Your task to perform on an android device: Open CNN.com Image 0: 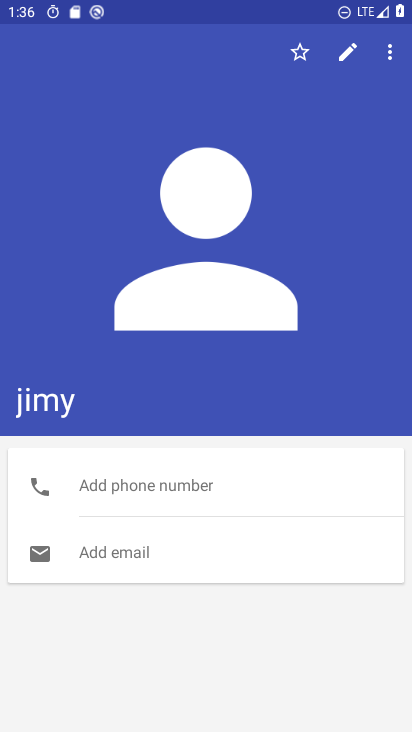
Step 0: press home button
Your task to perform on an android device: Open CNN.com Image 1: 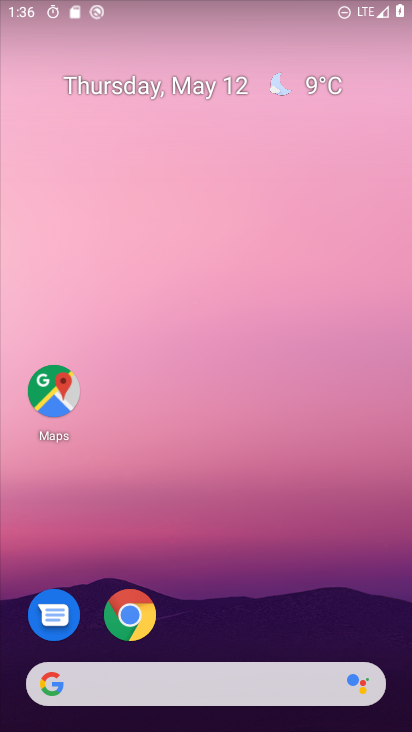
Step 1: click (131, 616)
Your task to perform on an android device: Open CNN.com Image 2: 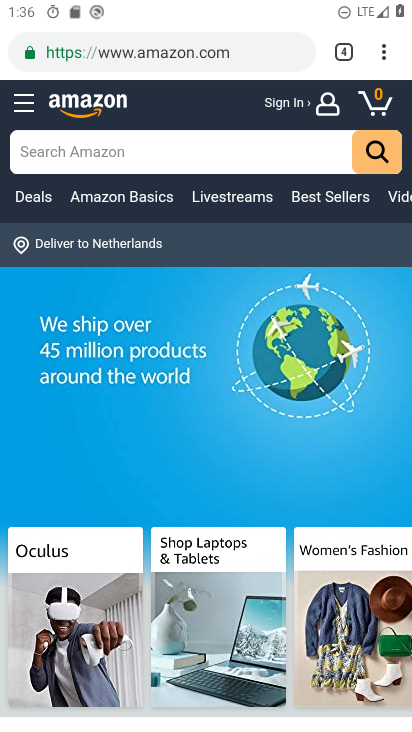
Step 2: click (217, 46)
Your task to perform on an android device: Open CNN.com Image 3: 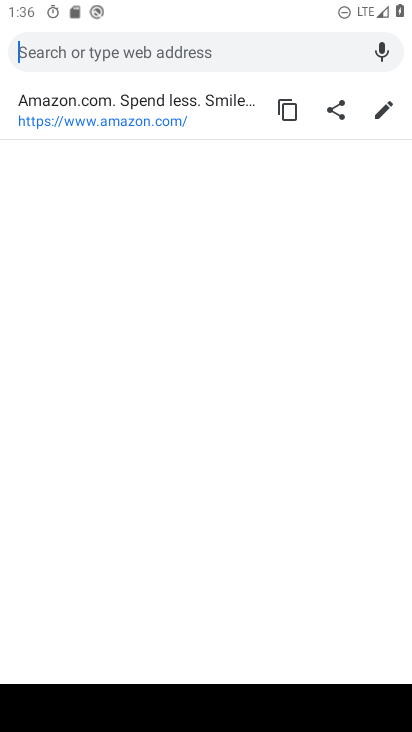
Step 3: type "cnn.com"
Your task to perform on an android device: Open CNN.com Image 4: 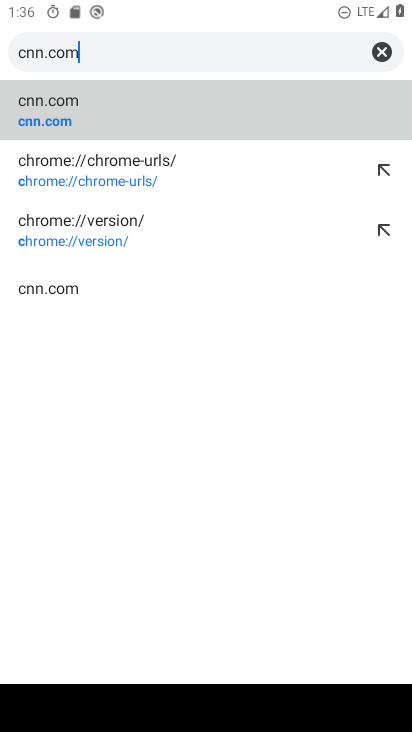
Step 4: type ""
Your task to perform on an android device: Open CNN.com Image 5: 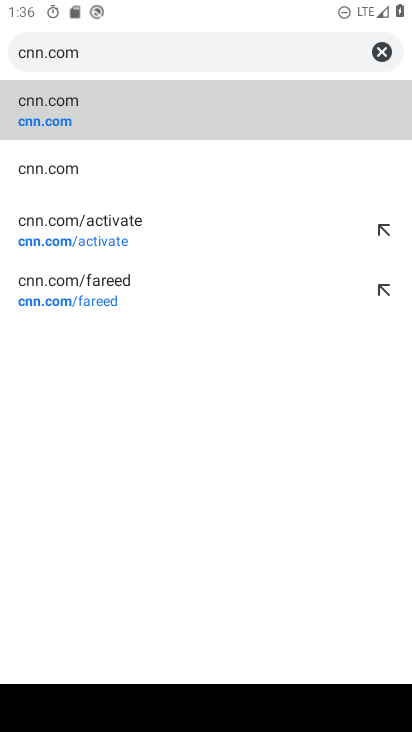
Step 5: click (40, 123)
Your task to perform on an android device: Open CNN.com Image 6: 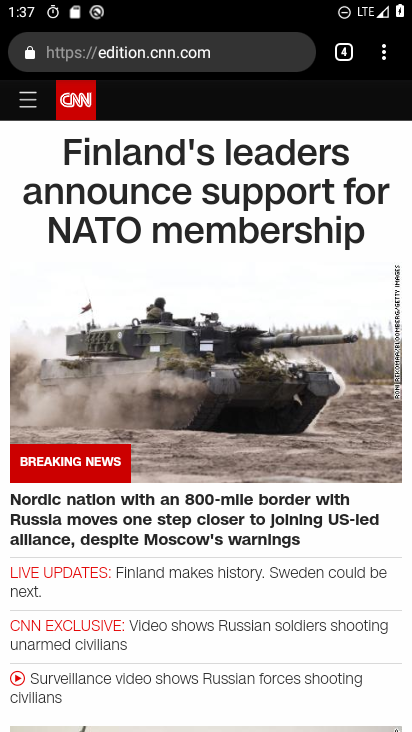
Step 6: task complete